Your task to perform on an android device: Clear the shopping cart on costco. Search for "razer blade" on costco, select the first entry, add it to the cart, then select checkout. Image 0: 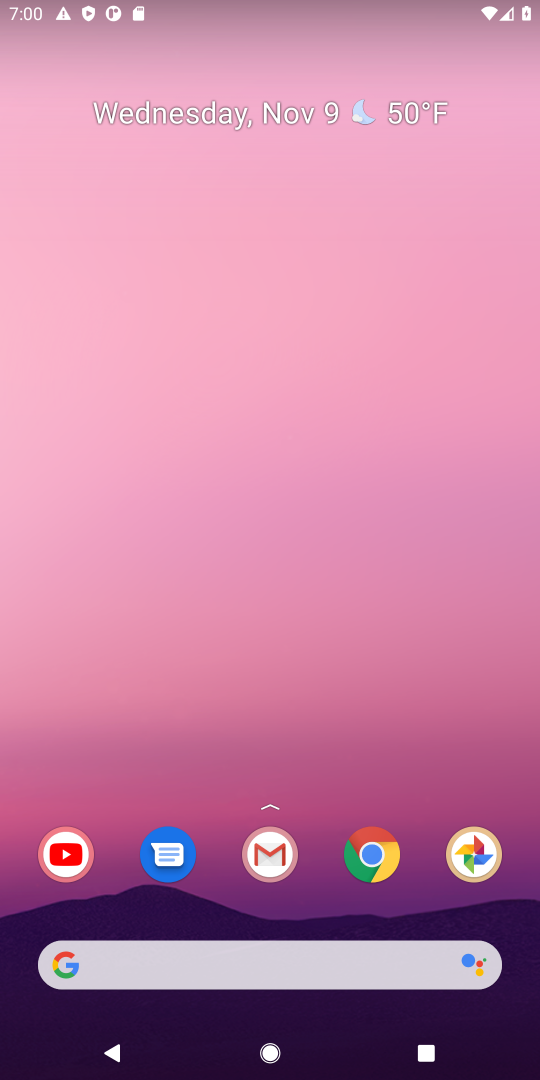
Step 0: click (283, 962)
Your task to perform on an android device: Clear the shopping cart on costco. Search for "razer blade" on costco, select the first entry, add it to the cart, then select checkout. Image 1: 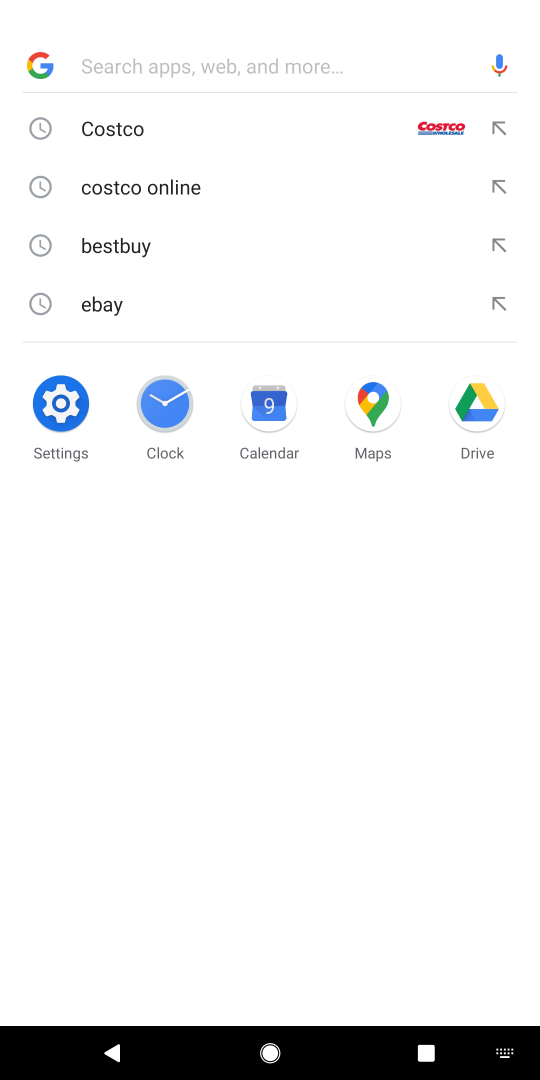
Step 1: task complete